Your task to perform on an android device: check battery use Image 0: 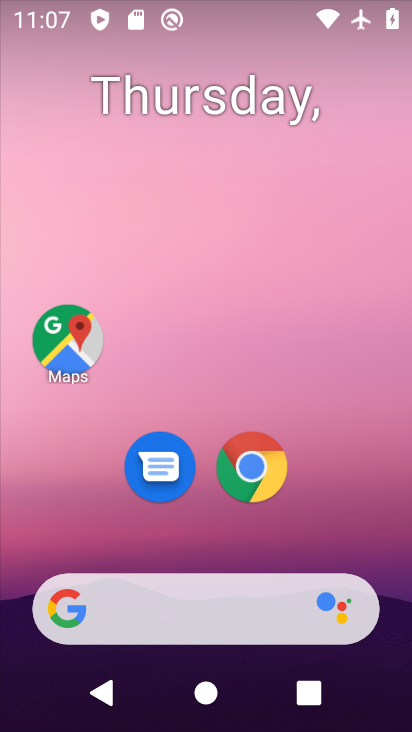
Step 0: drag from (326, 559) to (358, 4)
Your task to perform on an android device: check battery use Image 1: 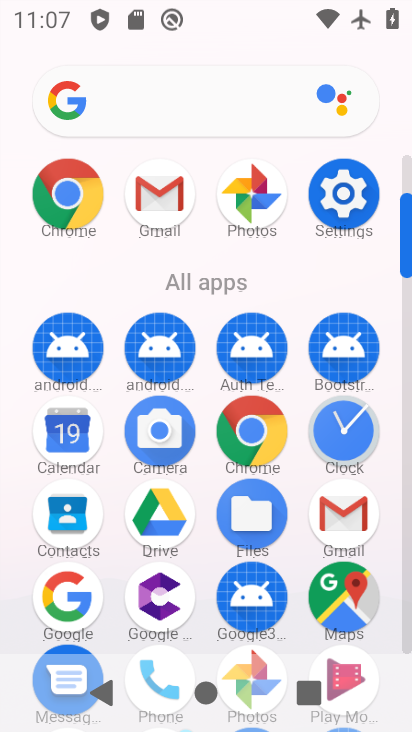
Step 1: click (345, 195)
Your task to perform on an android device: check battery use Image 2: 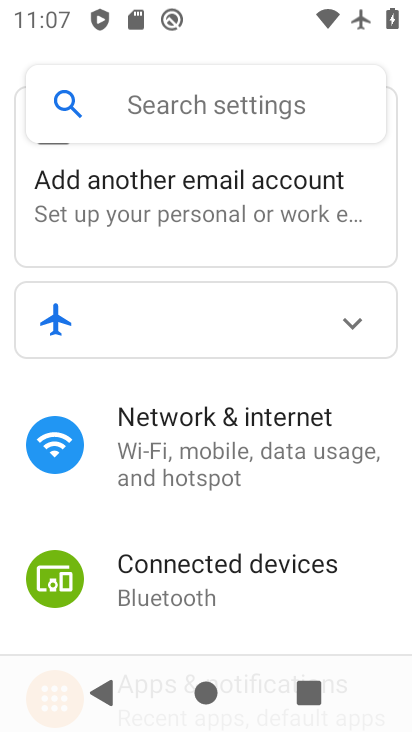
Step 2: drag from (274, 604) to (275, 197)
Your task to perform on an android device: check battery use Image 3: 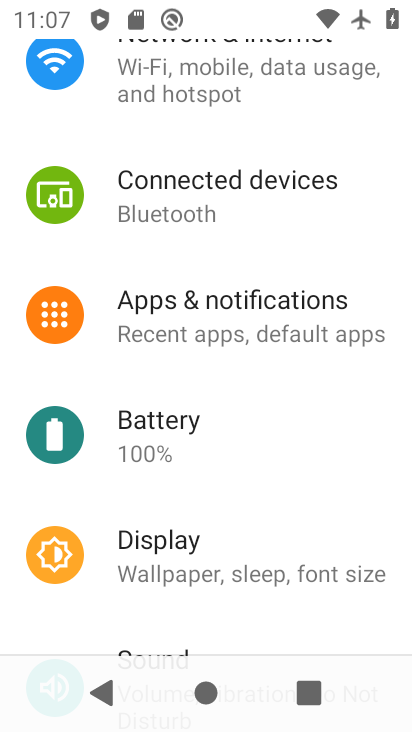
Step 3: click (137, 425)
Your task to perform on an android device: check battery use Image 4: 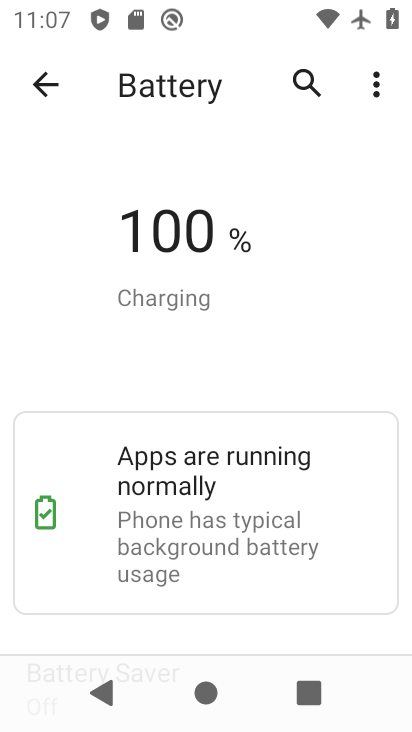
Step 4: click (333, 570)
Your task to perform on an android device: check battery use Image 5: 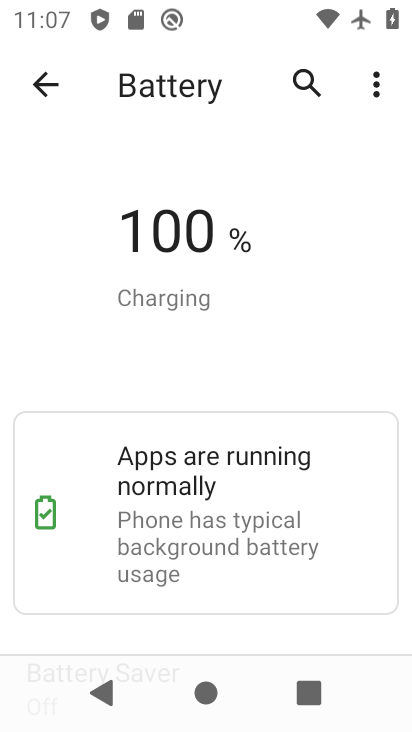
Step 5: click (380, 80)
Your task to perform on an android device: check battery use Image 6: 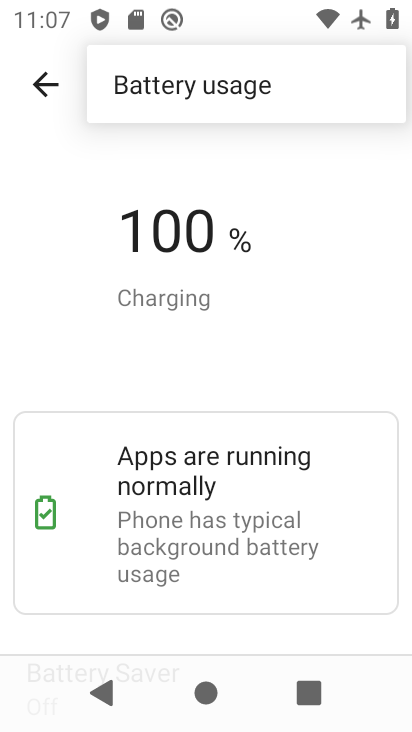
Step 6: click (220, 82)
Your task to perform on an android device: check battery use Image 7: 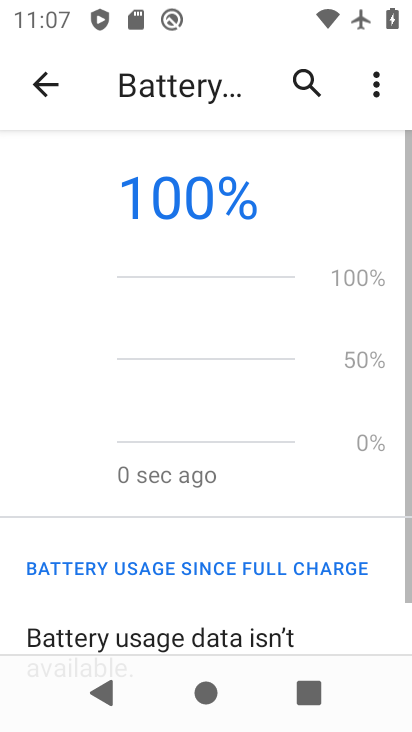
Step 7: task complete